Your task to perform on an android device: What's the price of the Samsung TV? Image 0: 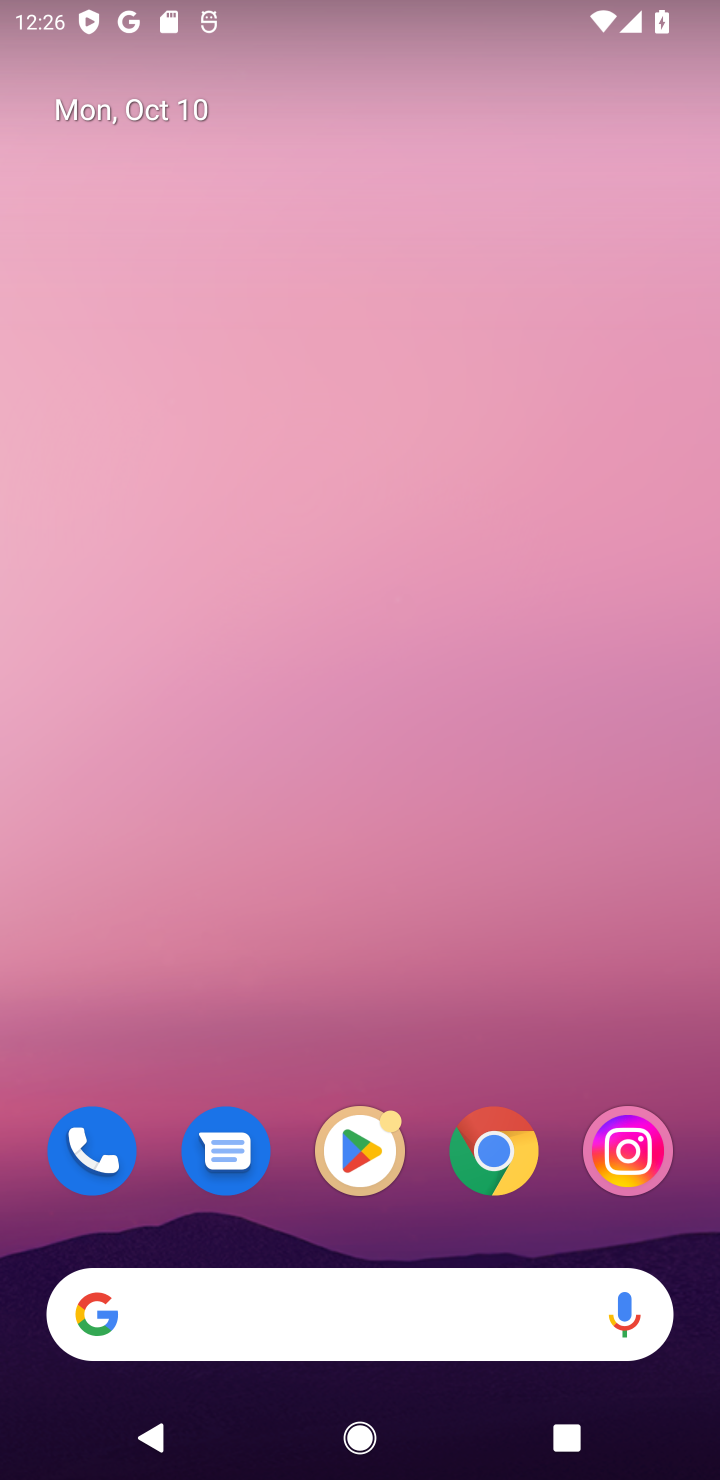
Step 0: click (303, 1295)
Your task to perform on an android device: What's the price of the Samsung TV? Image 1: 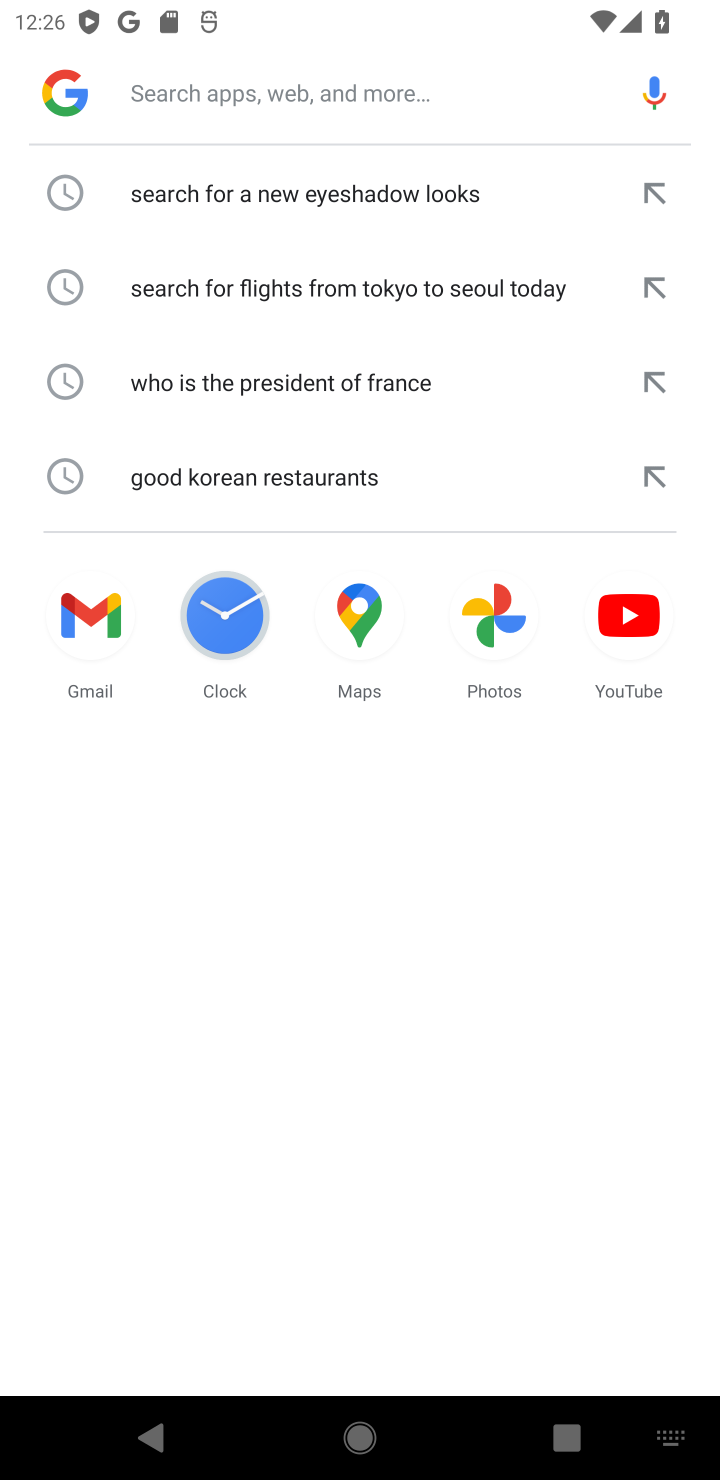
Step 1: type "What's the price of the Samsung TV?"
Your task to perform on an android device: What's the price of the Samsung TV? Image 2: 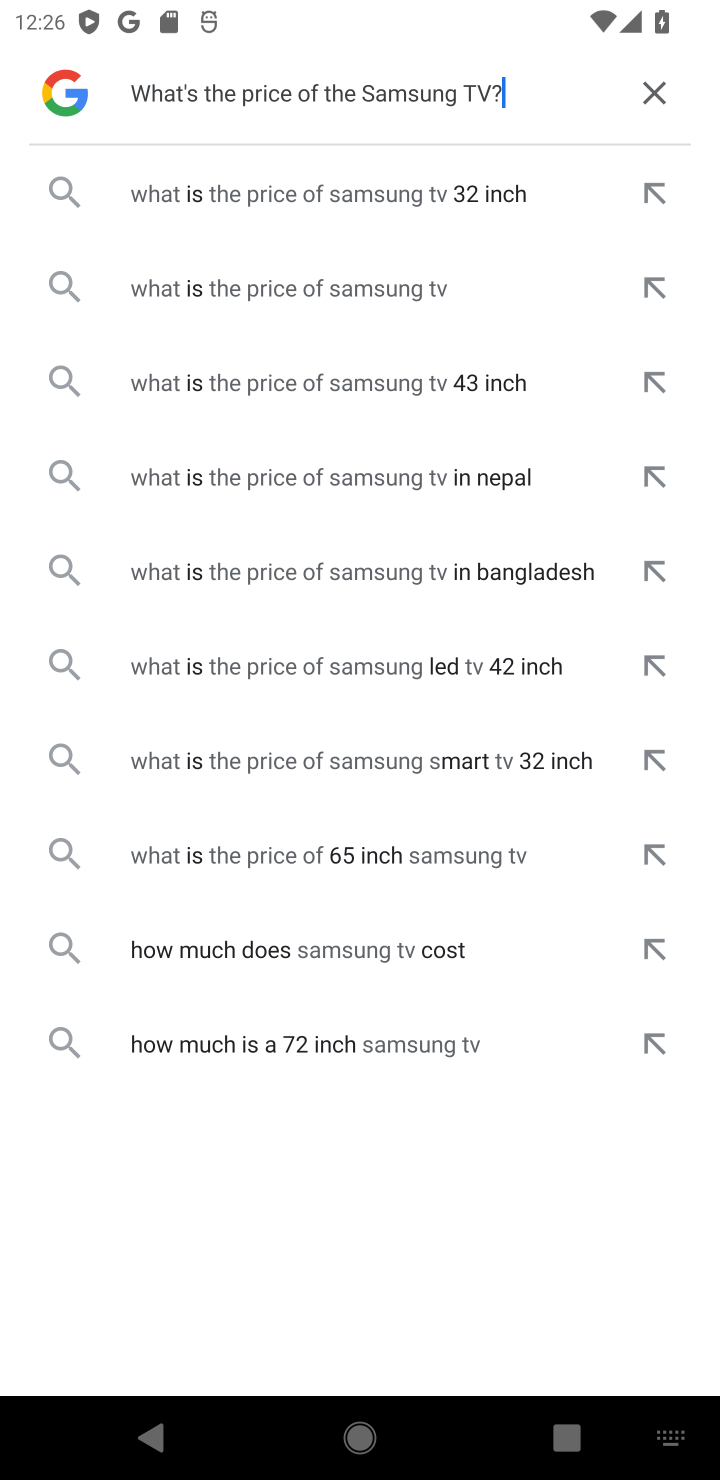
Step 2: click (331, 281)
Your task to perform on an android device: What's the price of the Samsung TV? Image 3: 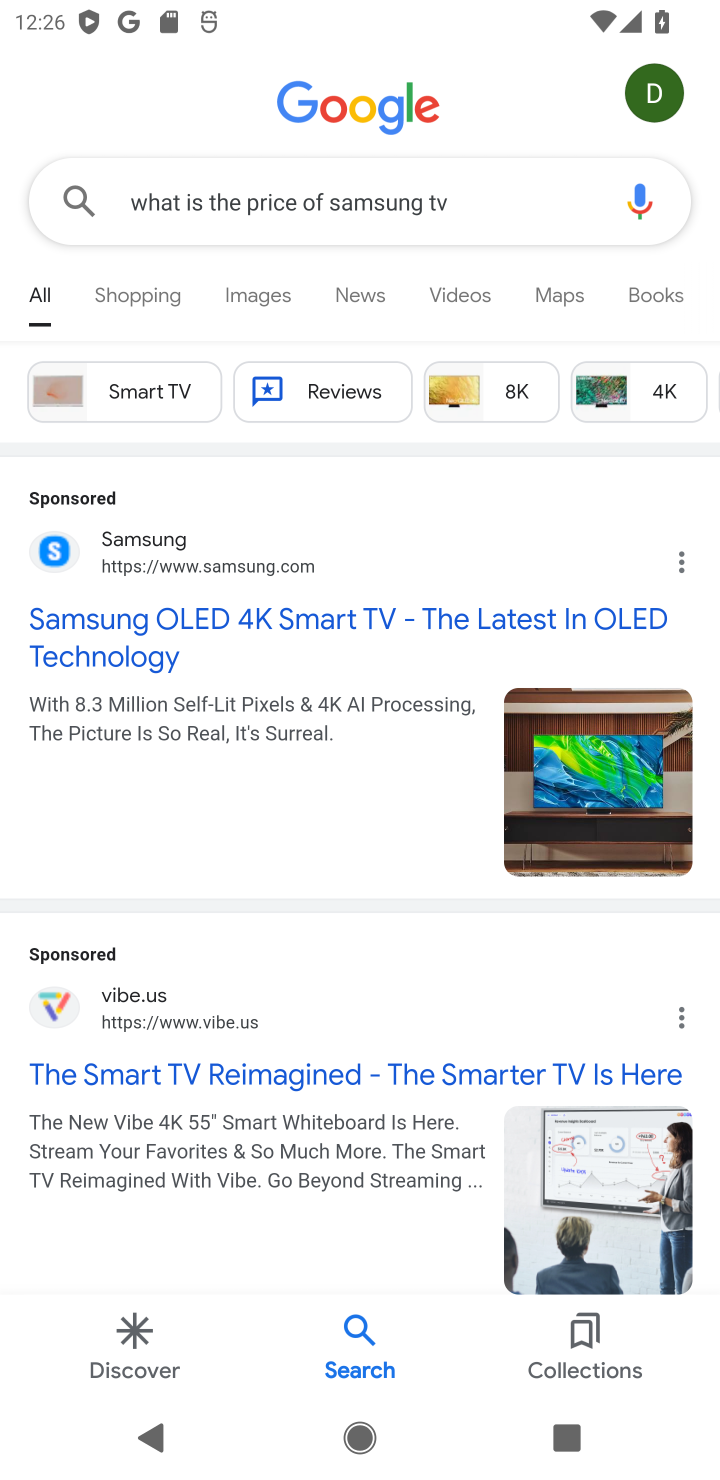
Step 3: click (198, 625)
Your task to perform on an android device: What's the price of the Samsung TV? Image 4: 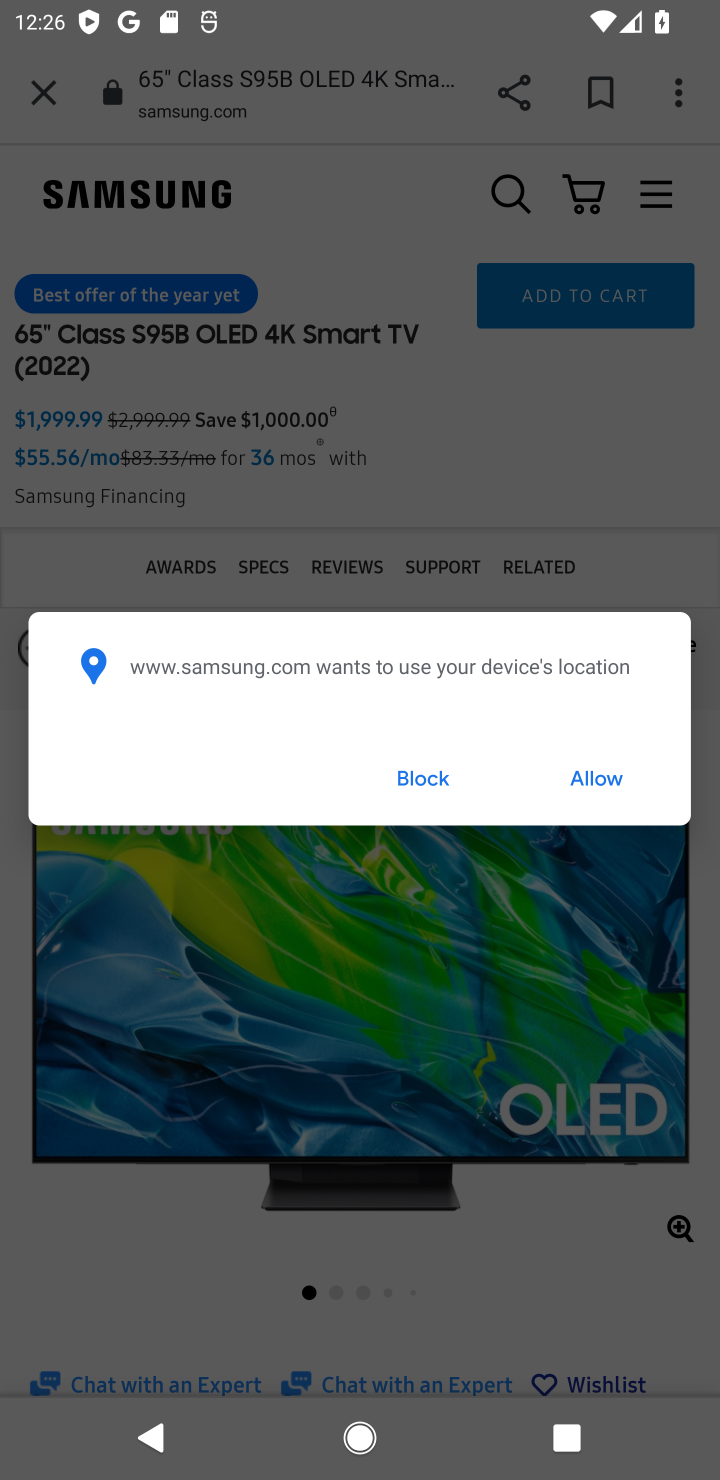
Step 4: task complete